Your task to perform on an android device: Do I have any events this weekend? Image 0: 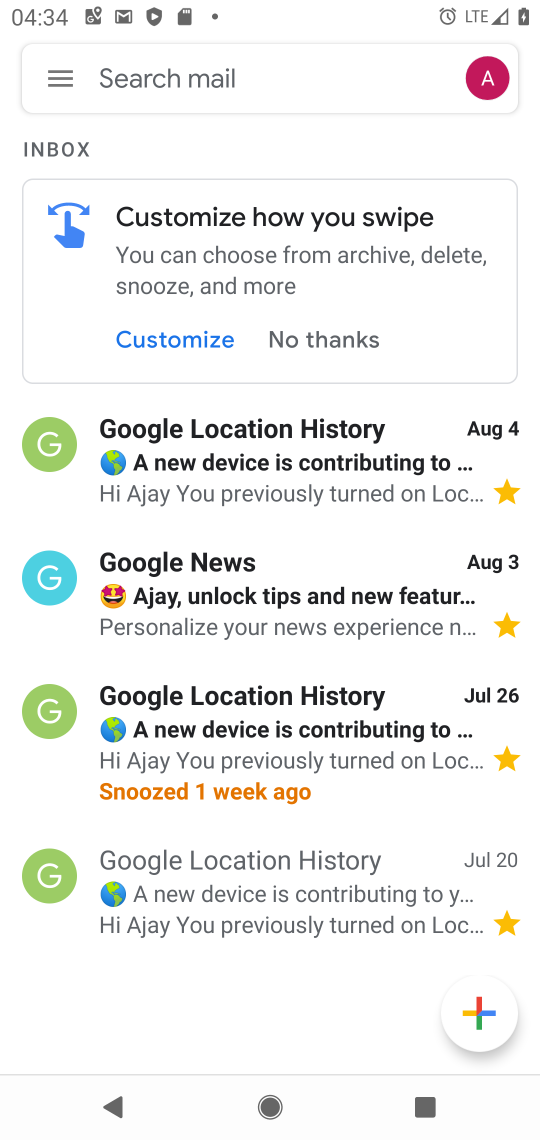
Step 0: press back button
Your task to perform on an android device: Do I have any events this weekend? Image 1: 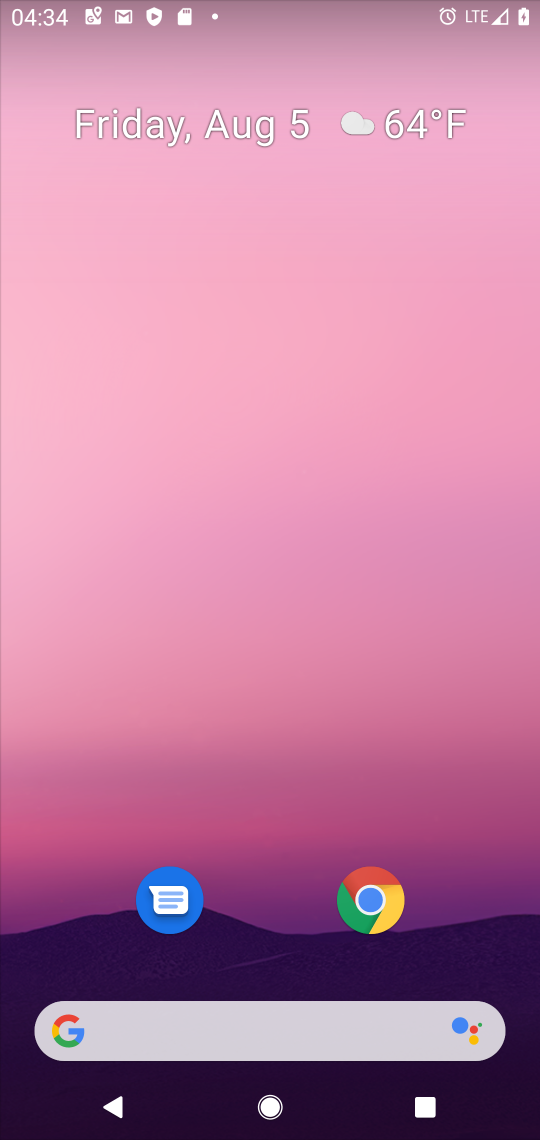
Step 1: drag from (276, 907) to (374, 0)
Your task to perform on an android device: Do I have any events this weekend? Image 2: 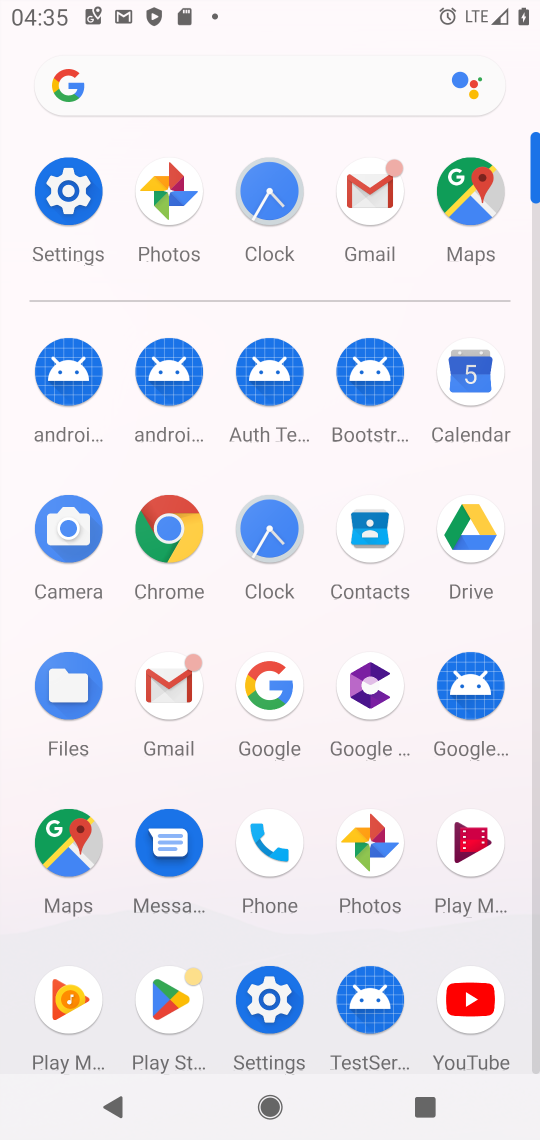
Step 2: click (462, 382)
Your task to perform on an android device: Do I have any events this weekend? Image 3: 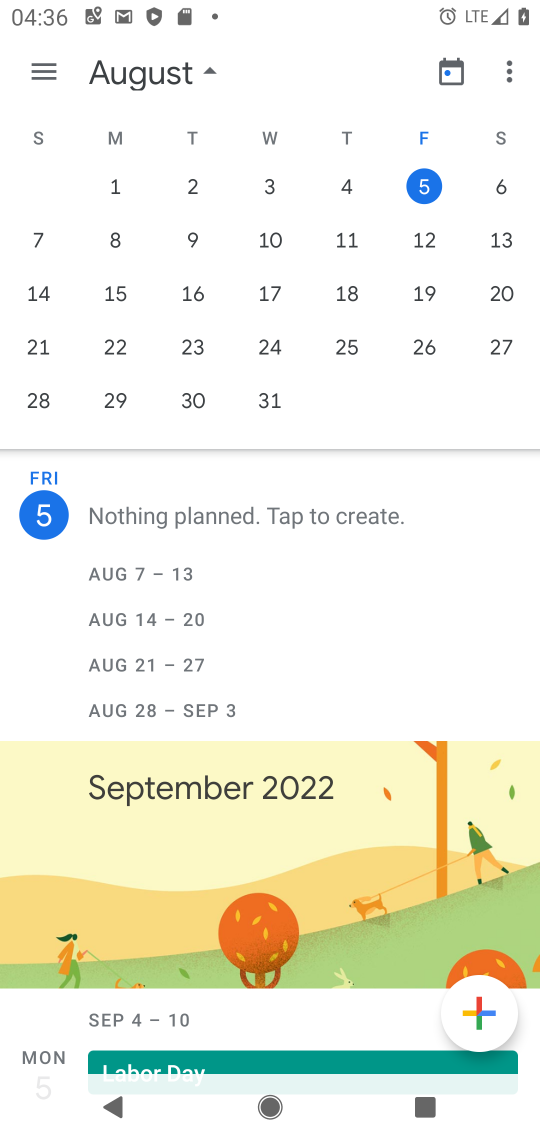
Step 3: press back button
Your task to perform on an android device: Do I have any events this weekend? Image 4: 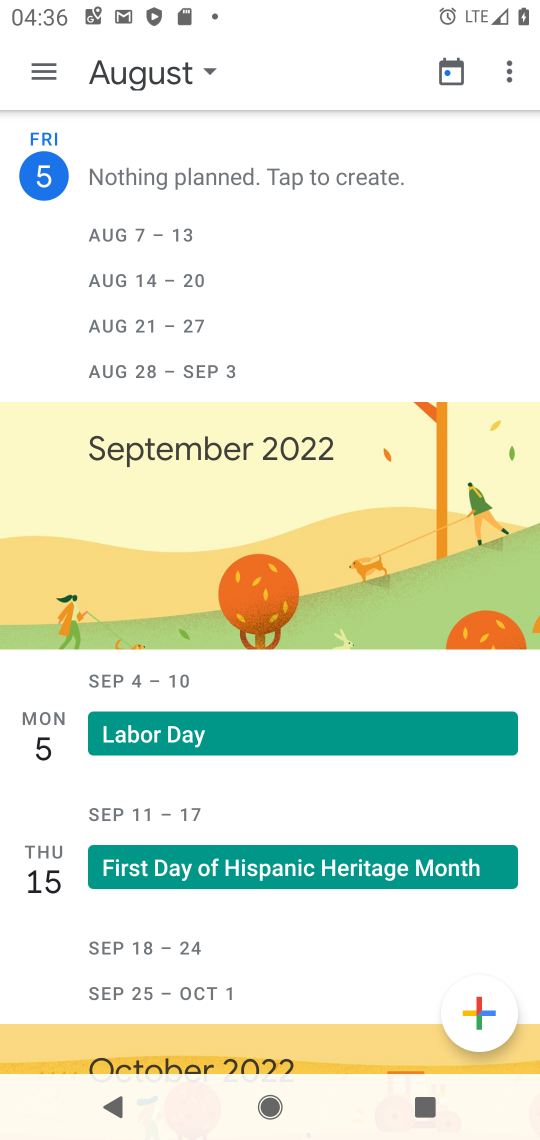
Step 4: press back button
Your task to perform on an android device: Do I have any events this weekend? Image 5: 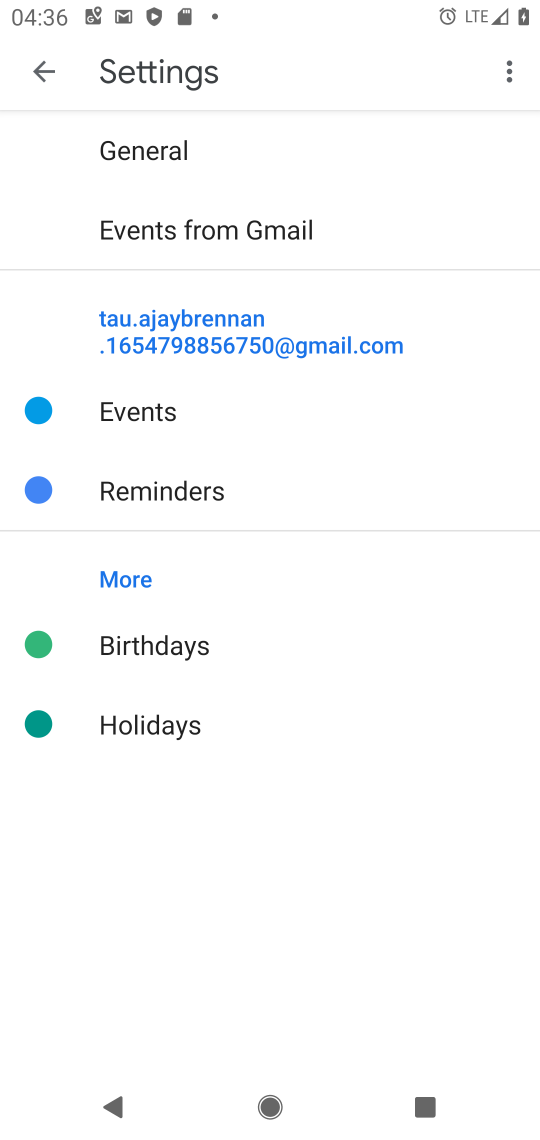
Step 5: click (50, 76)
Your task to perform on an android device: Do I have any events this weekend? Image 6: 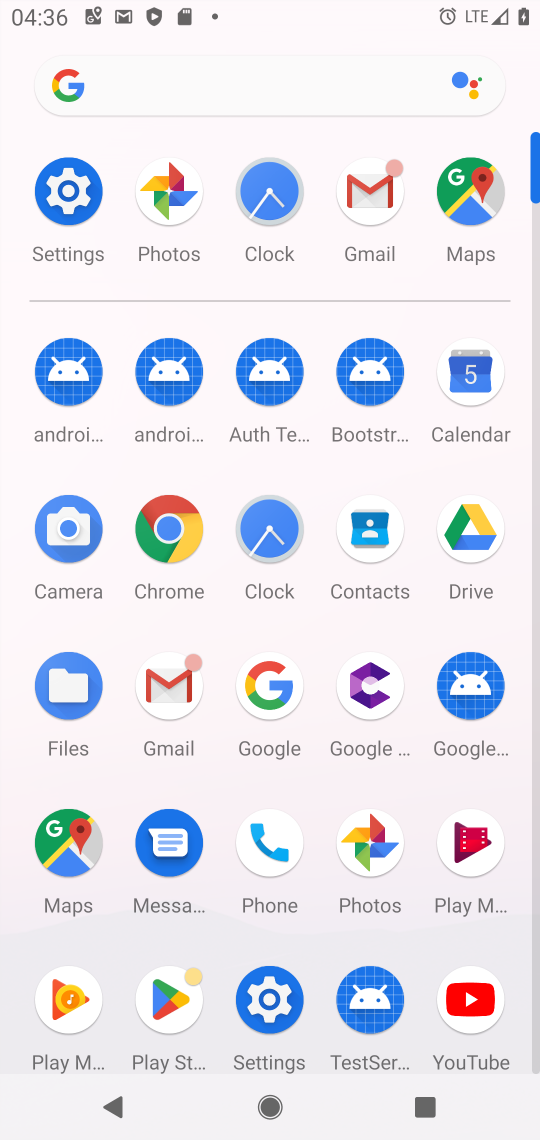
Step 6: click (491, 381)
Your task to perform on an android device: Do I have any events this weekend? Image 7: 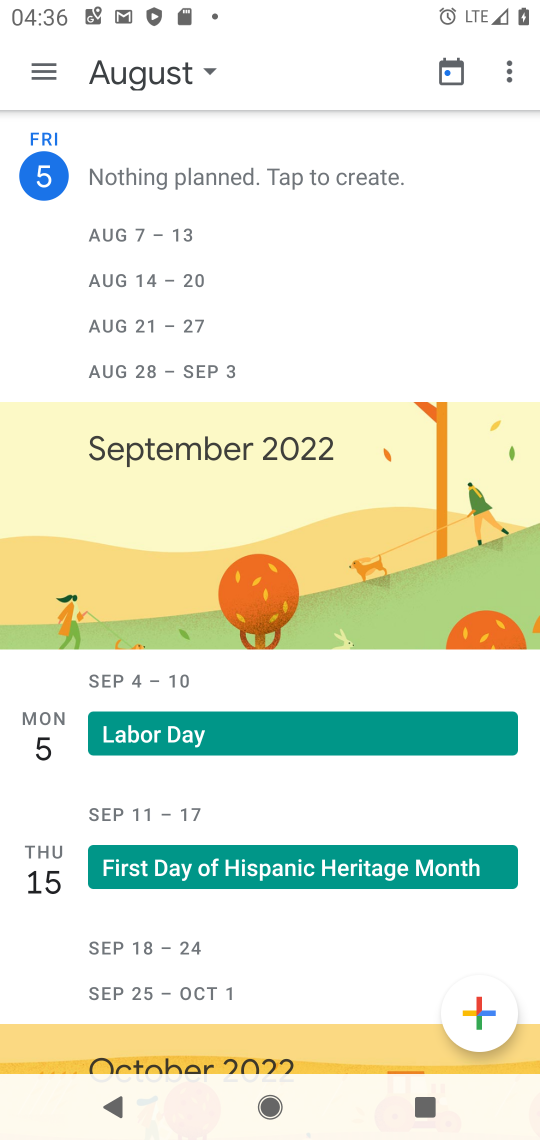
Step 7: task complete